Your task to perform on an android device: Open calendar and show me the fourth week of next month Image 0: 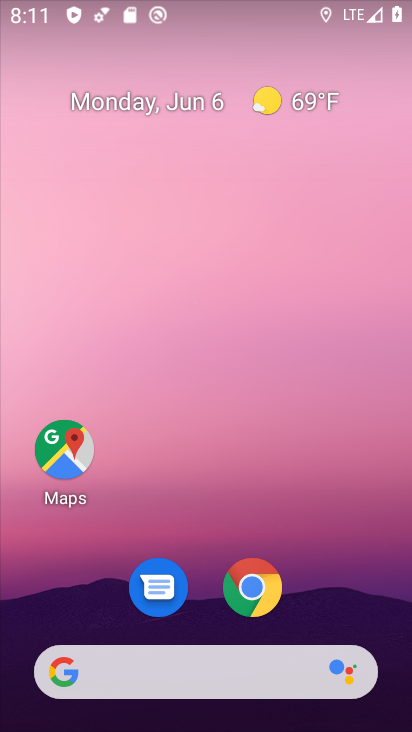
Step 0: drag from (343, 571) to (322, 132)
Your task to perform on an android device: Open calendar and show me the fourth week of next month Image 1: 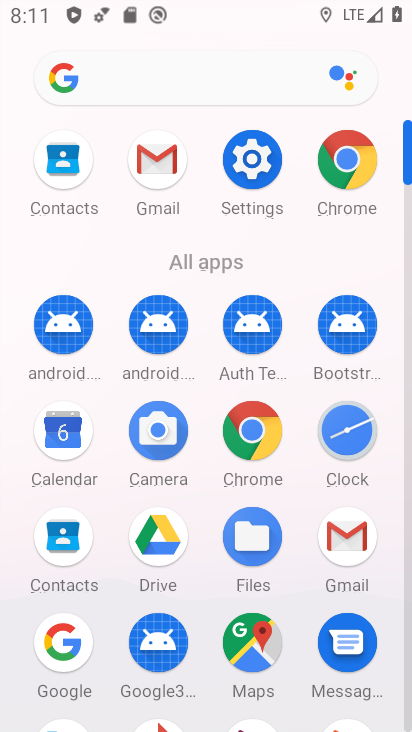
Step 1: click (70, 421)
Your task to perform on an android device: Open calendar and show me the fourth week of next month Image 2: 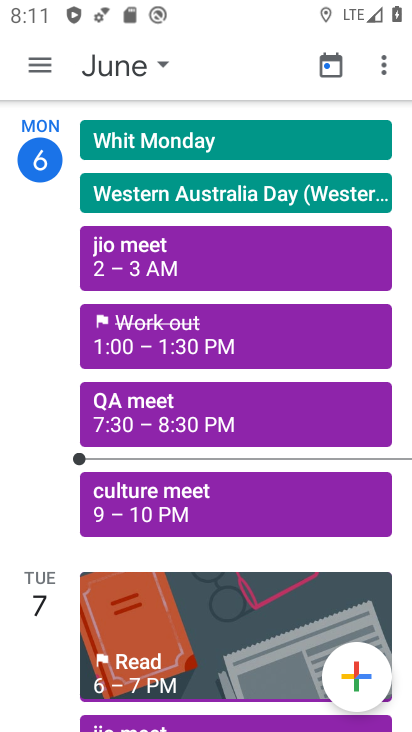
Step 2: click (107, 67)
Your task to perform on an android device: Open calendar and show me the fourth week of next month Image 3: 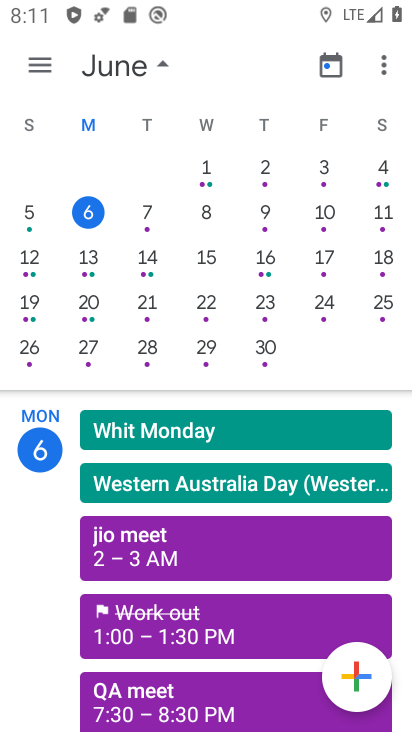
Step 3: drag from (355, 292) to (59, 292)
Your task to perform on an android device: Open calendar and show me the fourth week of next month Image 4: 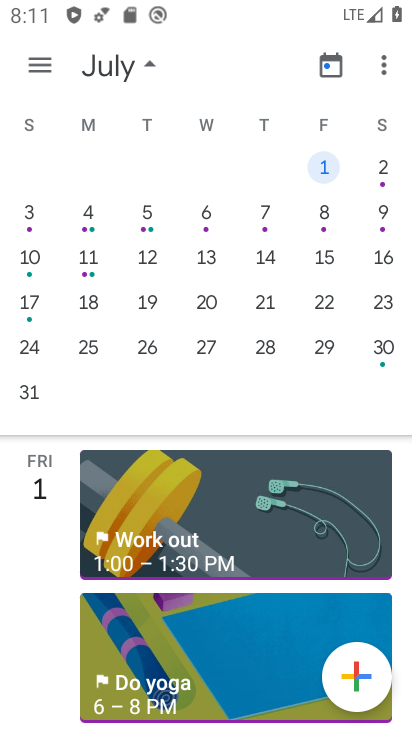
Step 4: click (34, 354)
Your task to perform on an android device: Open calendar and show me the fourth week of next month Image 5: 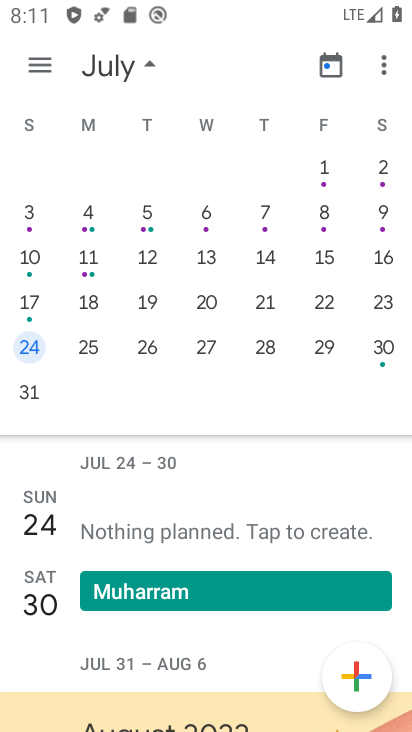
Step 5: click (44, 60)
Your task to perform on an android device: Open calendar and show me the fourth week of next month Image 6: 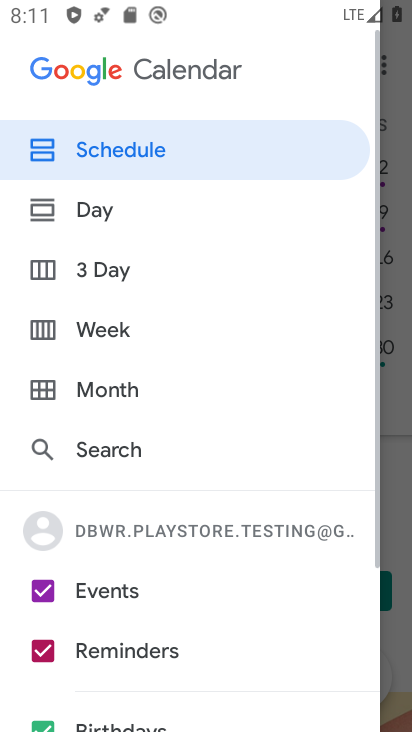
Step 6: click (105, 319)
Your task to perform on an android device: Open calendar and show me the fourth week of next month Image 7: 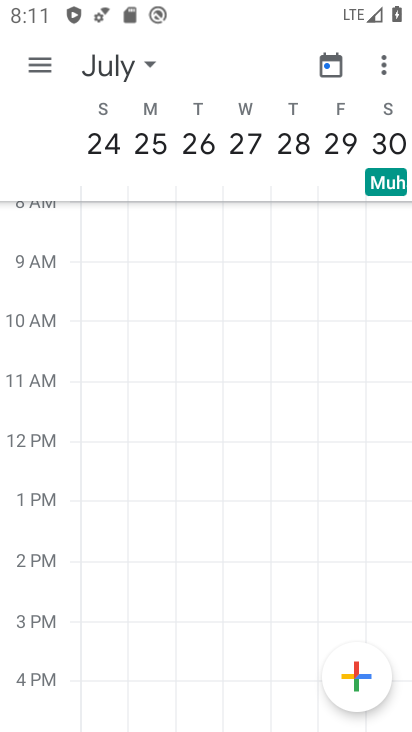
Step 7: task complete